Your task to perform on an android device: see sites visited before in the chrome app Image 0: 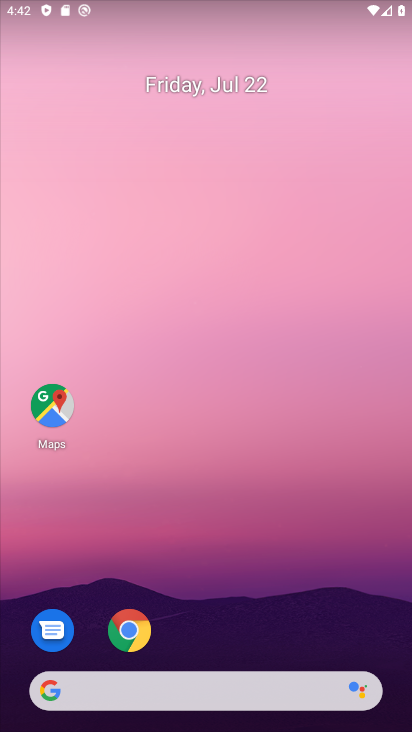
Step 0: click (127, 630)
Your task to perform on an android device: see sites visited before in the chrome app Image 1: 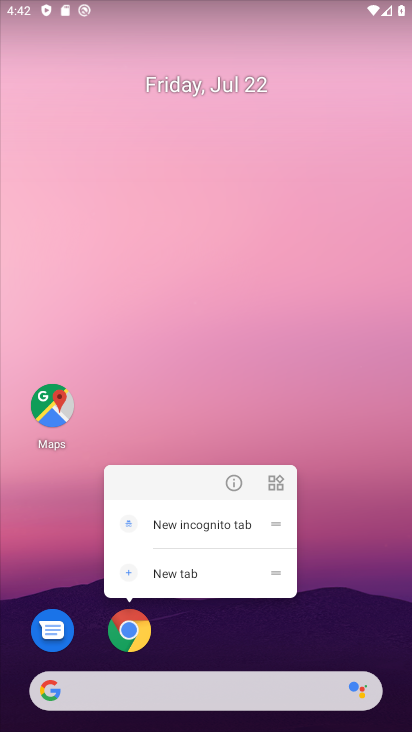
Step 1: click (132, 639)
Your task to perform on an android device: see sites visited before in the chrome app Image 2: 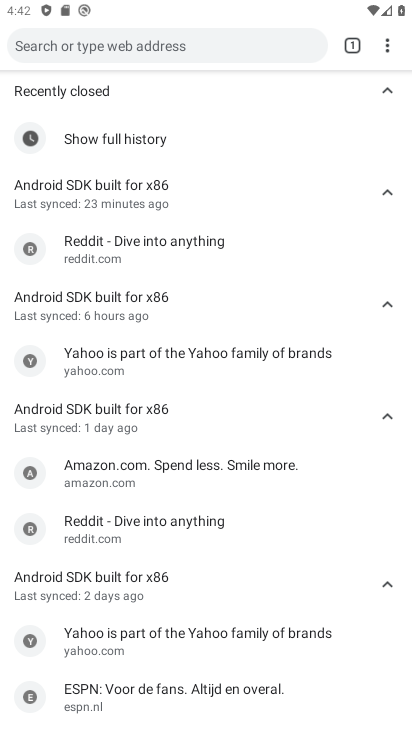
Step 2: click (384, 44)
Your task to perform on an android device: see sites visited before in the chrome app Image 3: 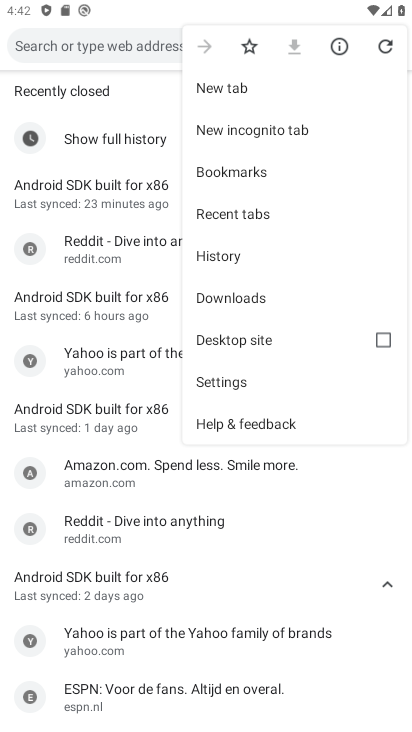
Step 3: click (215, 261)
Your task to perform on an android device: see sites visited before in the chrome app Image 4: 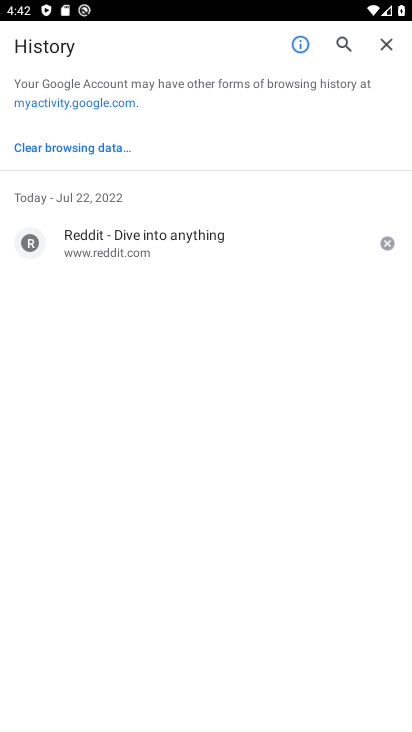
Step 4: task complete